Your task to perform on an android device: toggle pop-ups in chrome Image 0: 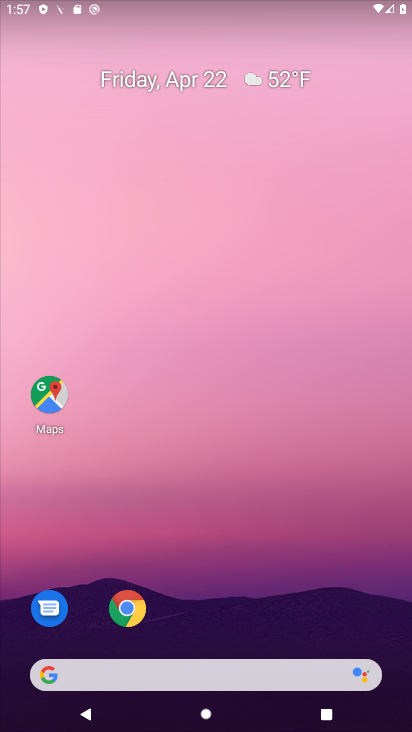
Step 0: click (130, 610)
Your task to perform on an android device: toggle pop-ups in chrome Image 1: 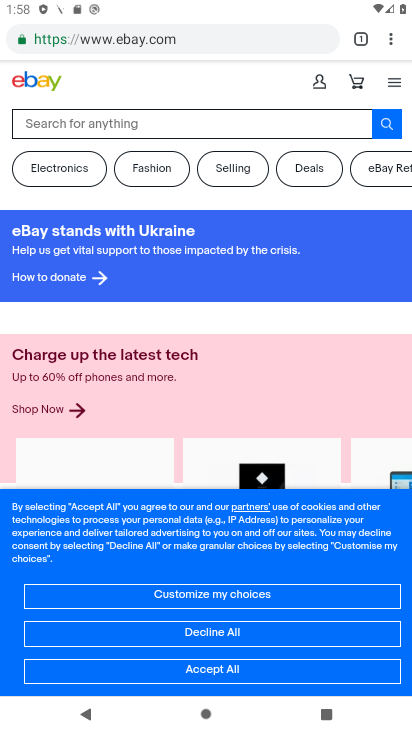
Step 1: click (391, 45)
Your task to perform on an android device: toggle pop-ups in chrome Image 2: 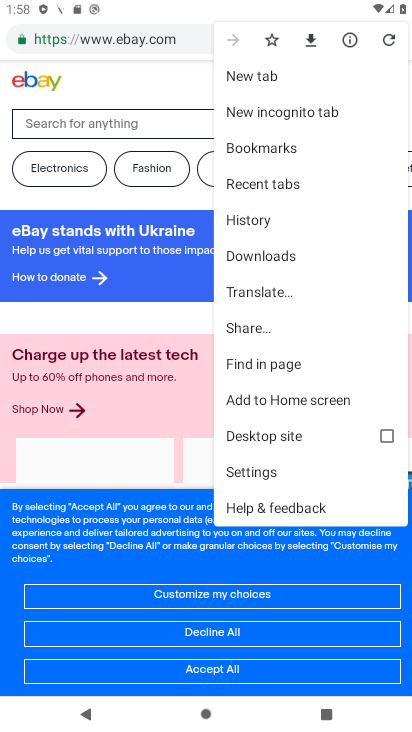
Step 2: click (266, 466)
Your task to perform on an android device: toggle pop-ups in chrome Image 3: 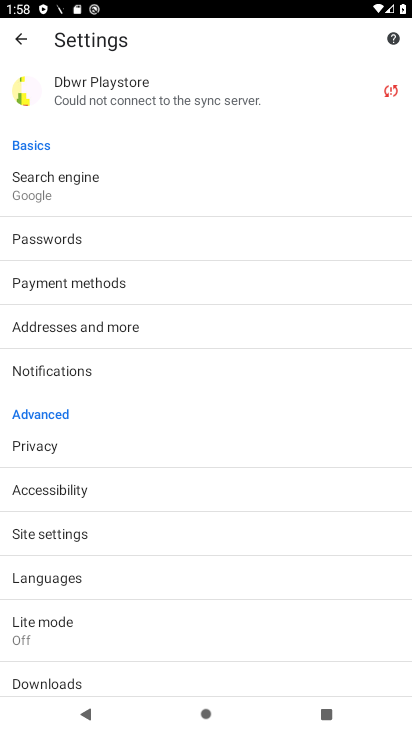
Step 3: click (86, 533)
Your task to perform on an android device: toggle pop-ups in chrome Image 4: 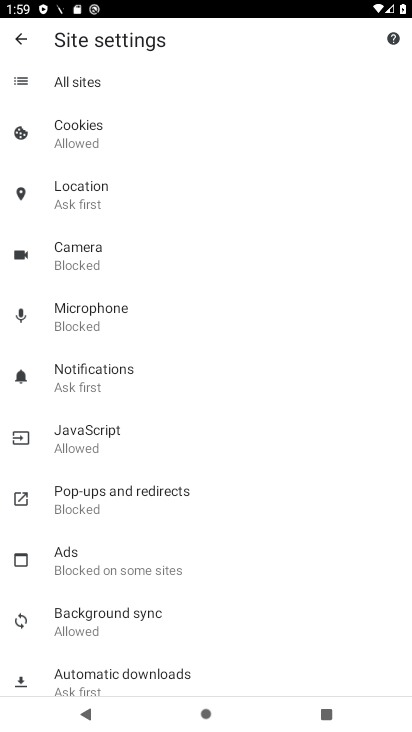
Step 4: click (138, 503)
Your task to perform on an android device: toggle pop-ups in chrome Image 5: 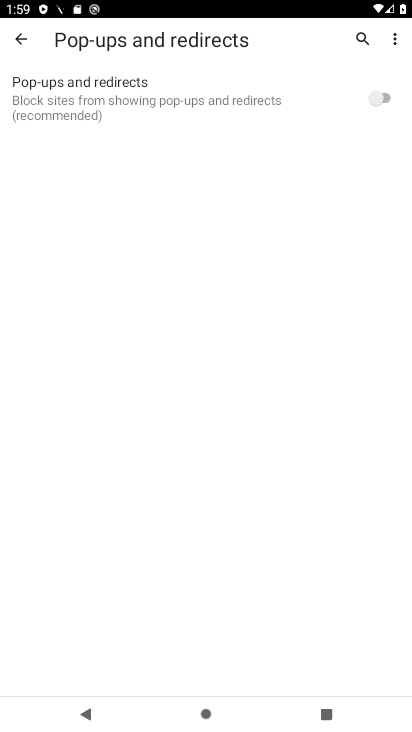
Step 5: click (391, 99)
Your task to perform on an android device: toggle pop-ups in chrome Image 6: 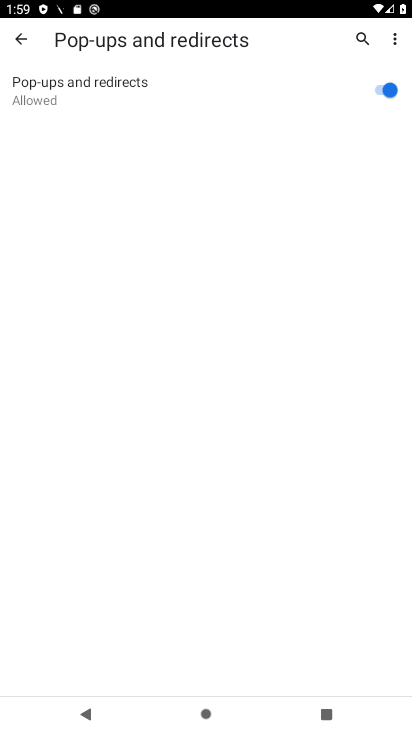
Step 6: task complete